Your task to perform on an android device: turn notification dots off Image 0: 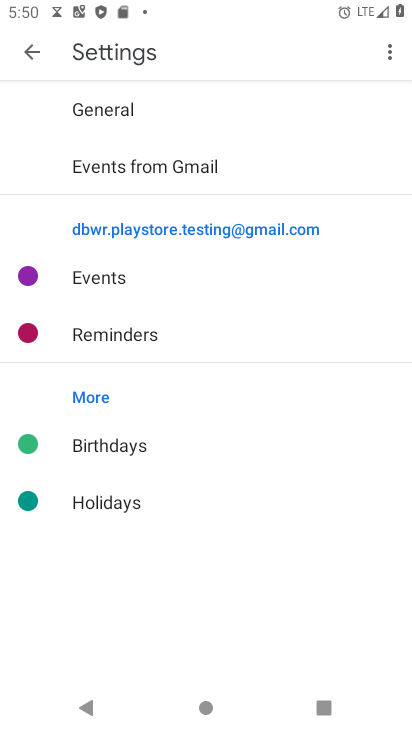
Step 0: press home button
Your task to perform on an android device: turn notification dots off Image 1: 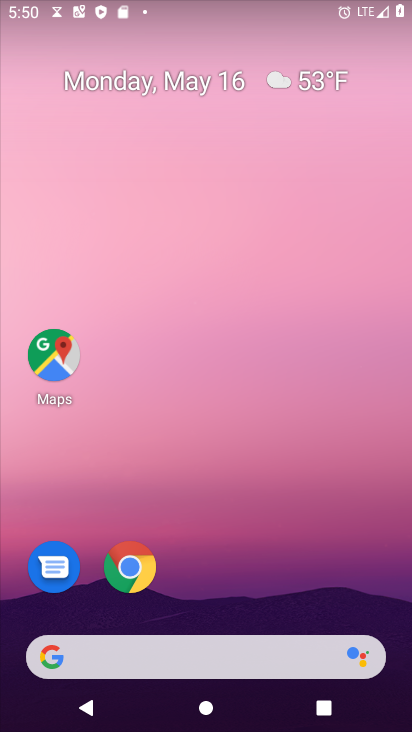
Step 1: drag from (267, 627) to (303, 10)
Your task to perform on an android device: turn notification dots off Image 2: 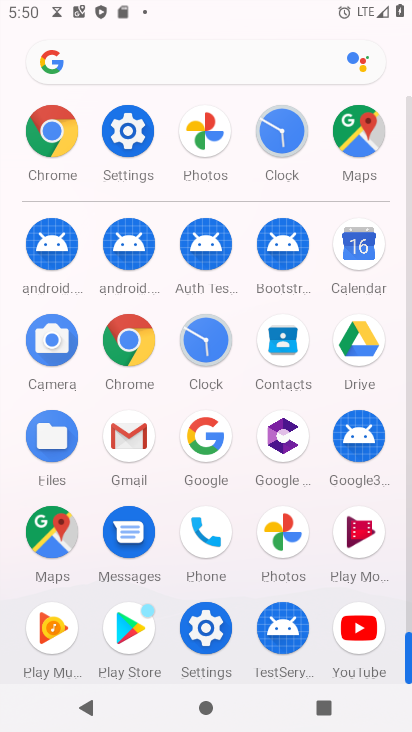
Step 2: click (131, 135)
Your task to perform on an android device: turn notification dots off Image 3: 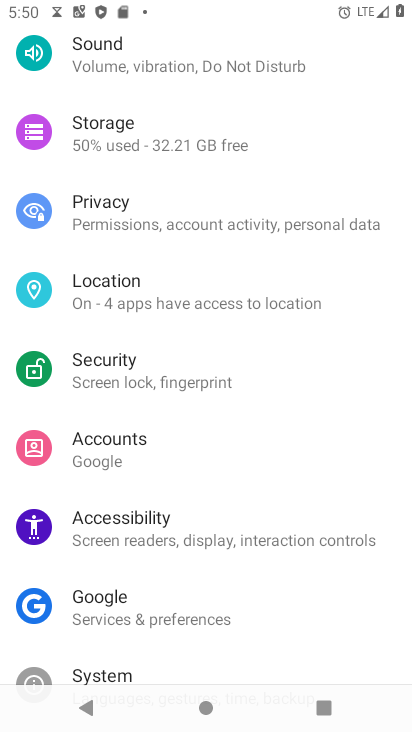
Step 3: drag from (172, 120) to (195, 692)
Your task to perform on an android device: turn notification dots off Image 4: 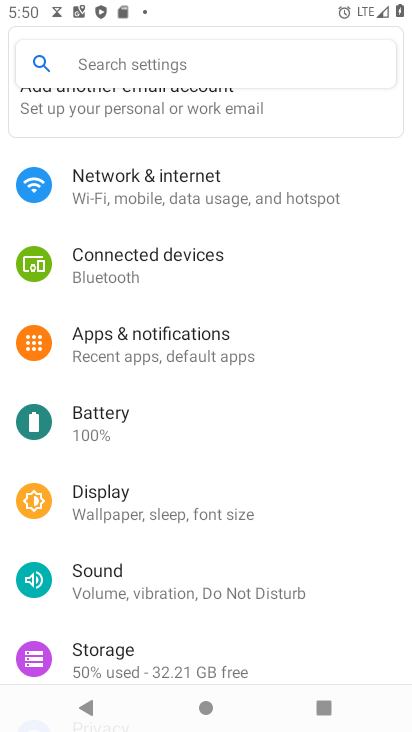
Step 4: click (192, 195)
Your task to perform on an android device: turn notification dots off Image 5: 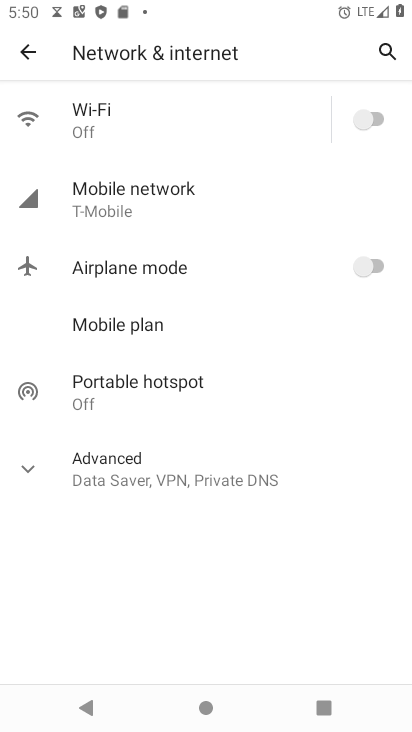
Step 5: press back button
Your task to perform on an android device: turn notification dots off Image 6: 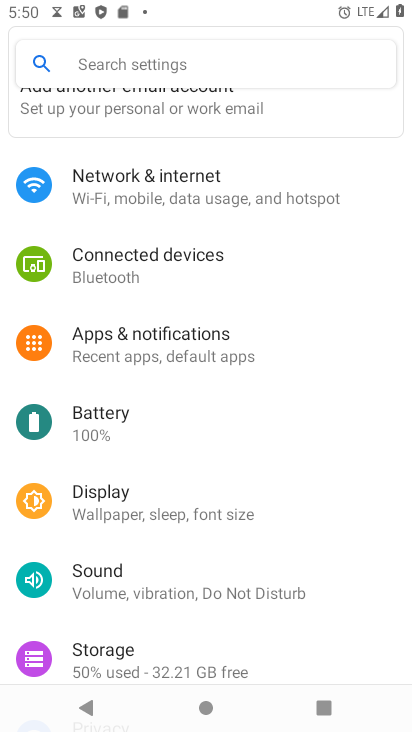
Step 6: click (157, 355)
Your task to perform on an android device: turn notification dots off Image 7: 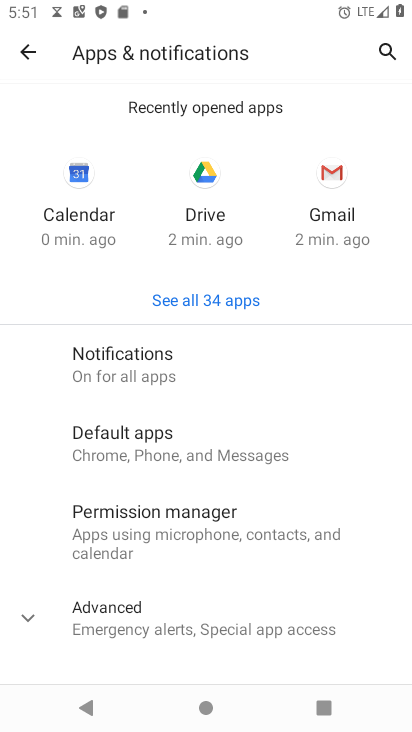
Step 7: click (135, 366)
Your task to perform on an android device: turn notification dots off Image 8: 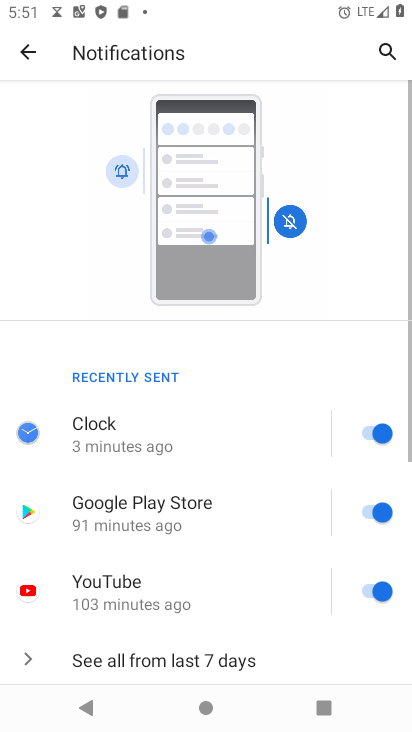
Step 8: drag from (216, 636) to (146, 29)
Your task to perform on an android device: turn notification dots off Image 9: 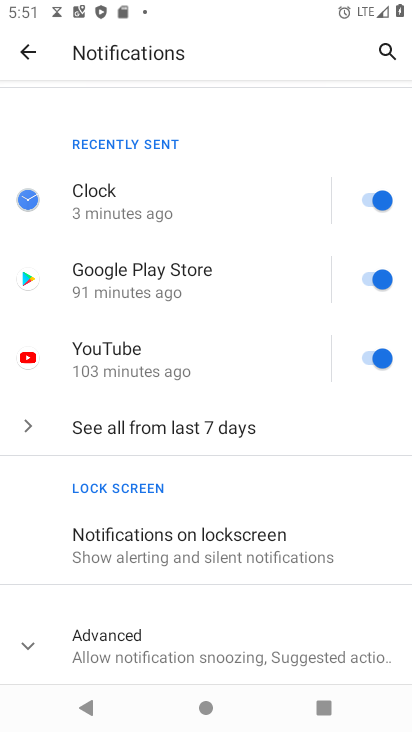
Step 9: click (223, 552)
Your task to perform on an android device: turn notification dots off Image 10: 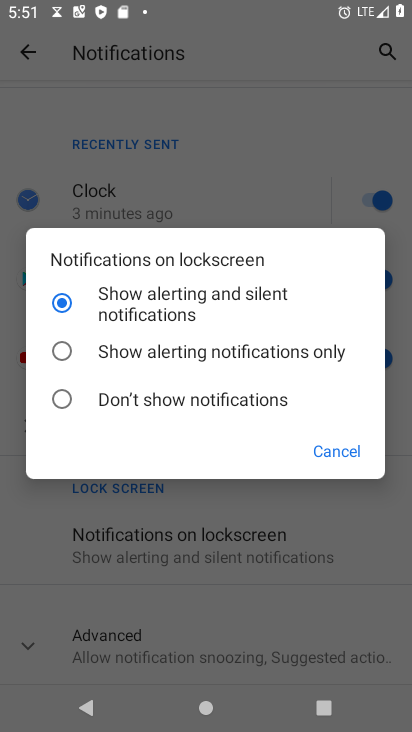
Step 10: click (336, 452)
Your task to perform on an android device: turn notification dots off Image 11: 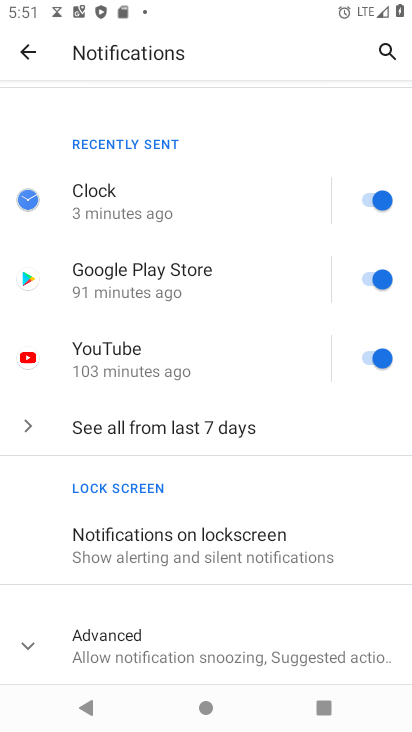
Step 11: click (328, 641)
Your task to perform on an android device: turn notification dots off Image 12: 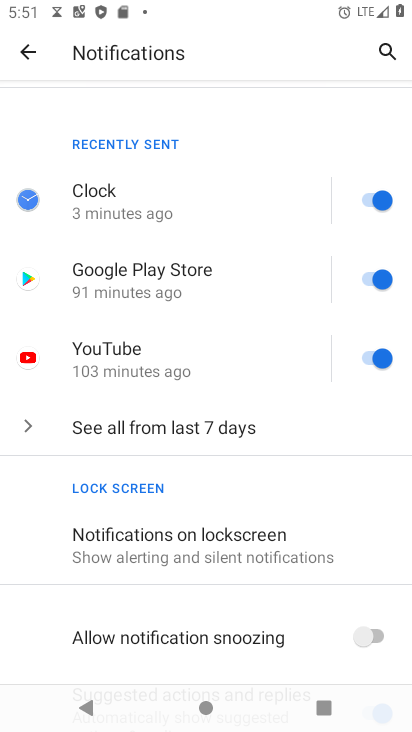
Step 12: drag from (270, 623) to (271, 184)
Your task to perform on an android device: turn notification dots off Image 13: 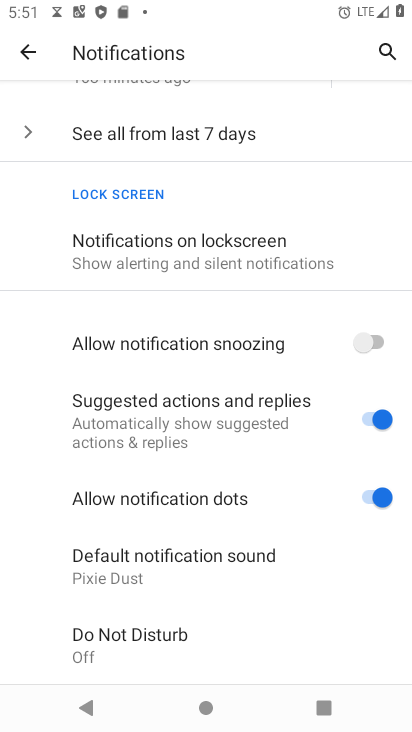
Step 13: click (381, 494)
Your task to perform on an android device: turn notification dots off Image 14: 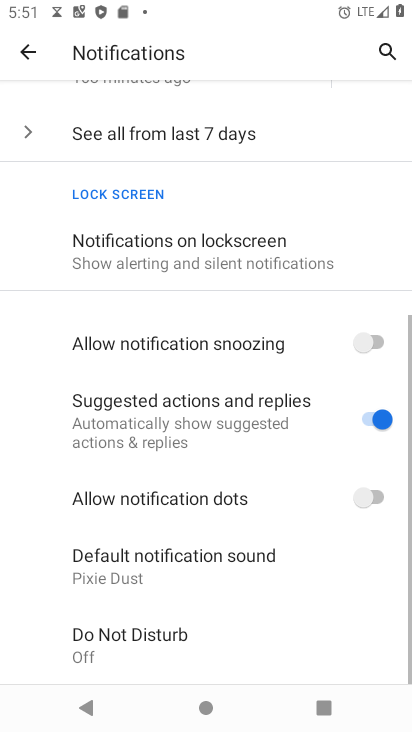
Step 14: task complete